Your task to perform on an android device: see tabs open on other devices in the chrome app Image 0: 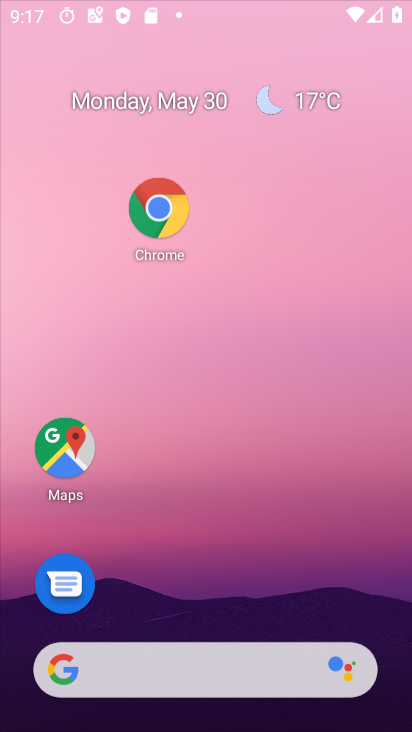
Step 0: click (406, 158)
Your task to perform on an android device: see tabs open on other devices in the chrome app Image 1: 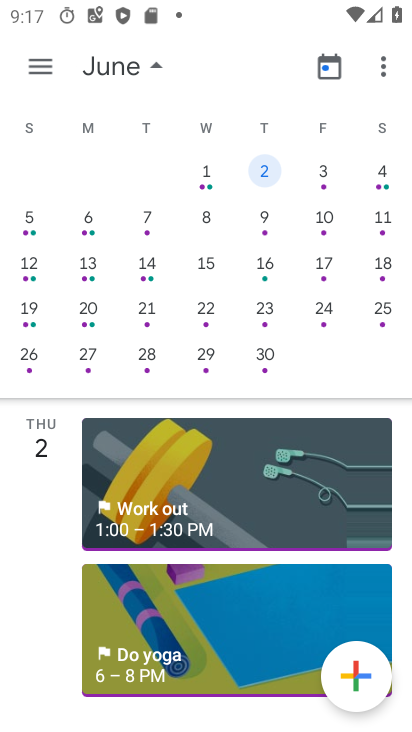
Step 1: press home button
Your task to perform on an android device: see tabs open on other devices in the chrome app Image 2: 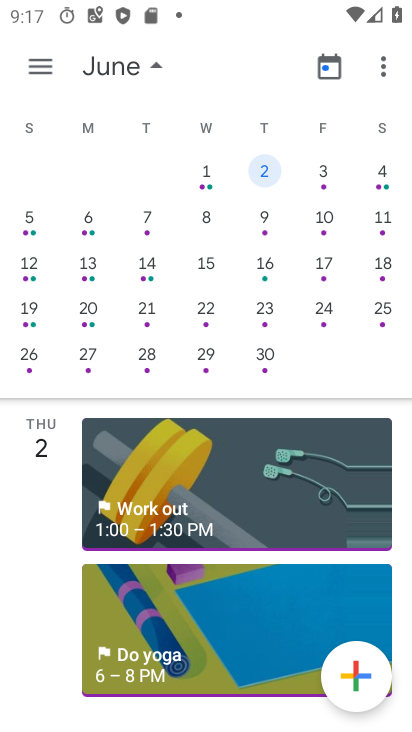
Step 2: click (406, 158)
Your task to perform on an android device: see tabs open on other devices in the chrome app Image 3: 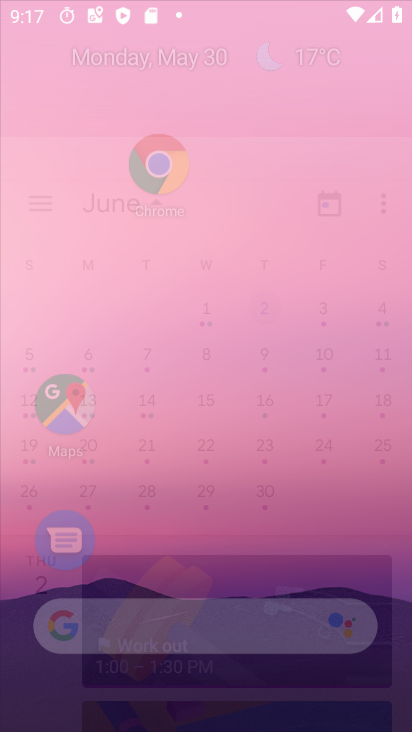
Step 3: press home button
Your task to perform on an android device: see tabs open on other devices in the chrome app Image 4: 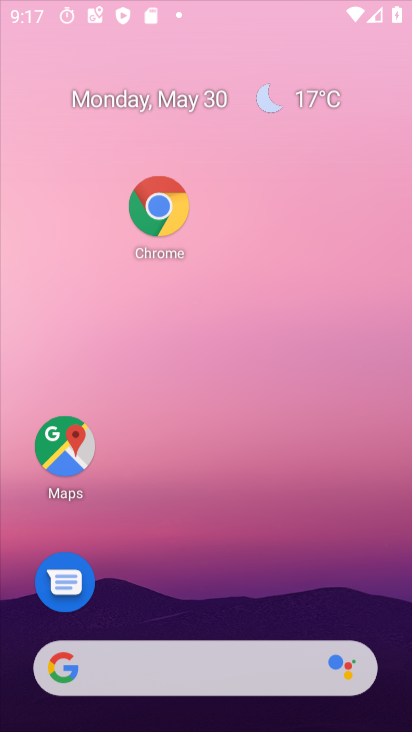
Step 4: drag from (411, 647) to (408, 131)
Your task to perform on an android device: see tabs open on other devices in the chrome app Image 5: 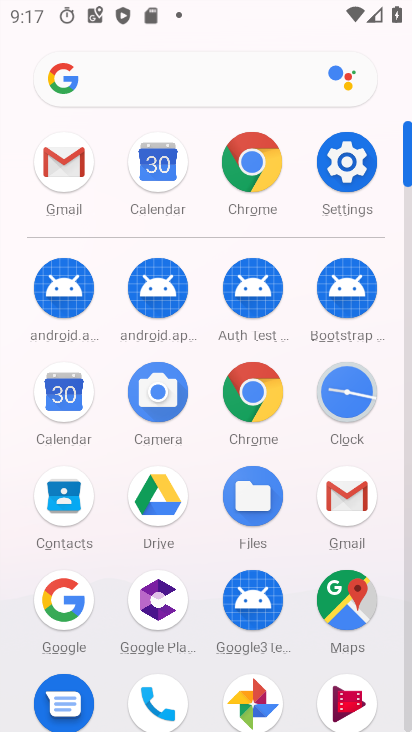
Step 5: click (253, 165)
Your task to perform on an android device: see tabs open on other devices in the chrome app Image 6: 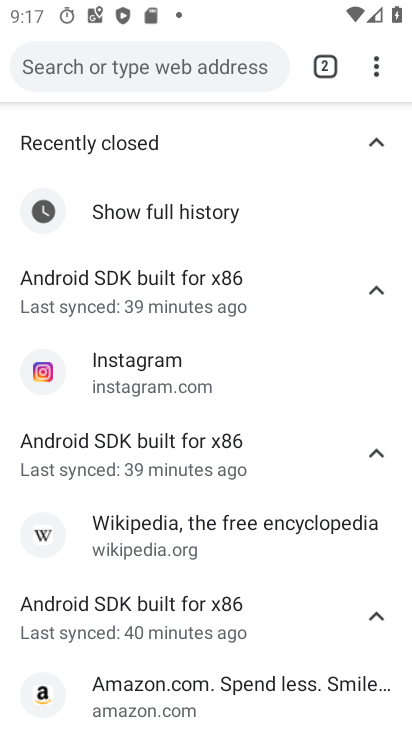
Step 6: drag from (283, 173) to (290, 254)
Your task to perform on an android device: see tabs open on other devices in the chrome app Image 7: 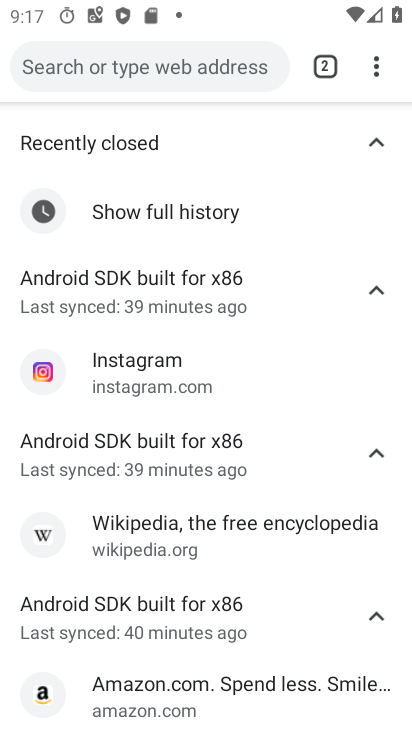
Step 7: drag from (383, 66) to (169, 303)
Your task to perform on an android device: see tabs open on other devices in the chrome app Image 8: 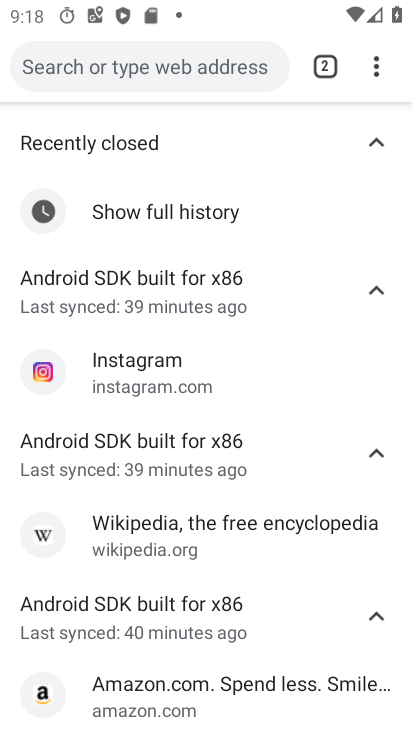
Step 8: click (307, 174)
Your task to perform on an android device: see tabs open on other devices in the chrome app Image 9: 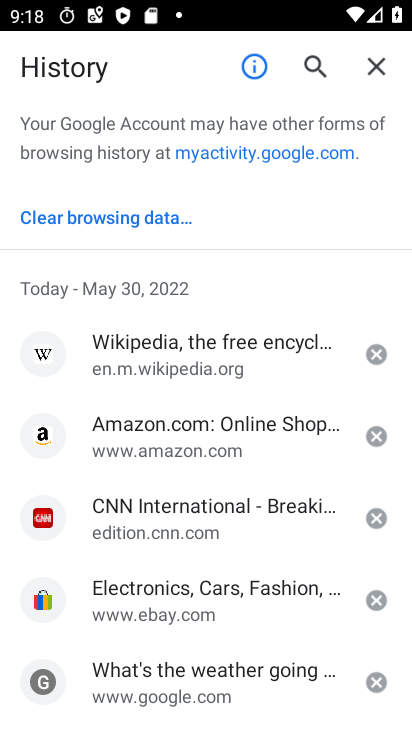
Step 9: click (378, 73)
Your task to perform on an android device: see tabs open on other devices in the chrome app Image 10: 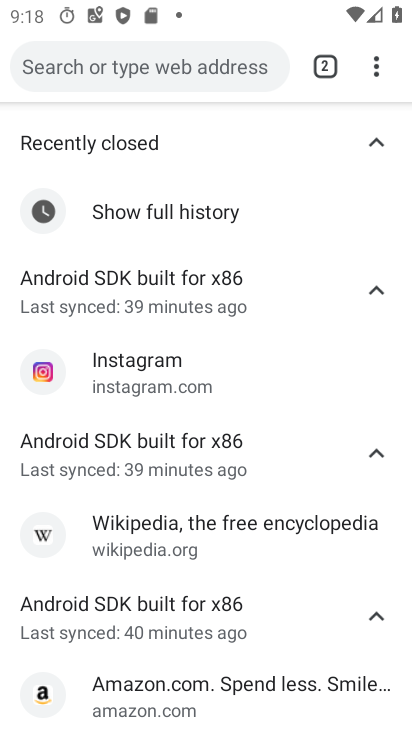
Step 10: task complete